Your task to perform on an android device: open app "Adobe Express: Graphic Design" Image 0: 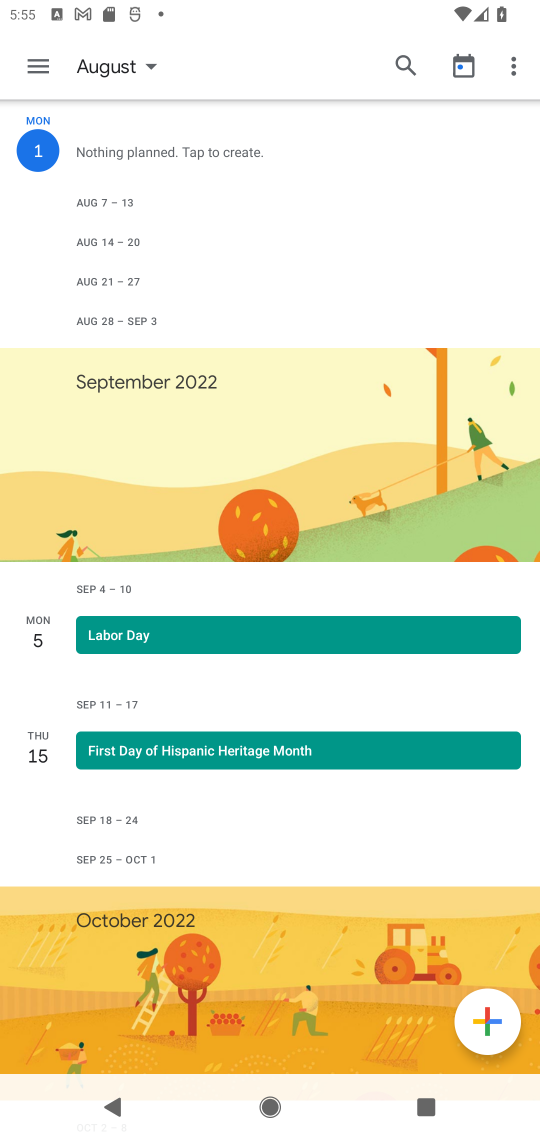
Step 0: press home button
Your task to perform on an android device: open app "Adobe Express: Graphic Design" Image 1: 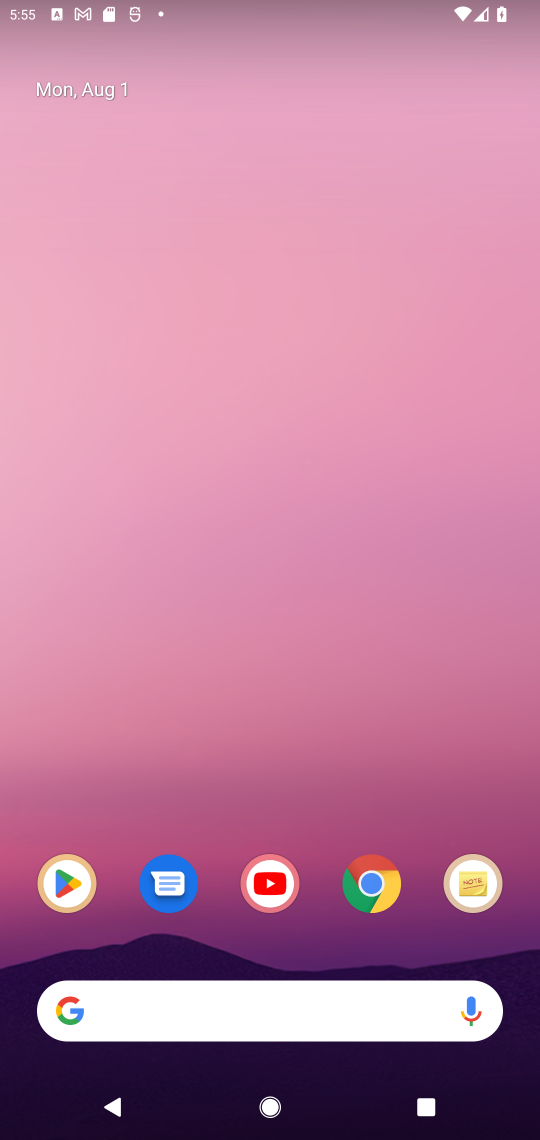
Step 1: click (85, 878)
Your task to perform on an android device: open app "Adobe Express: Graphic Design" Image 2: 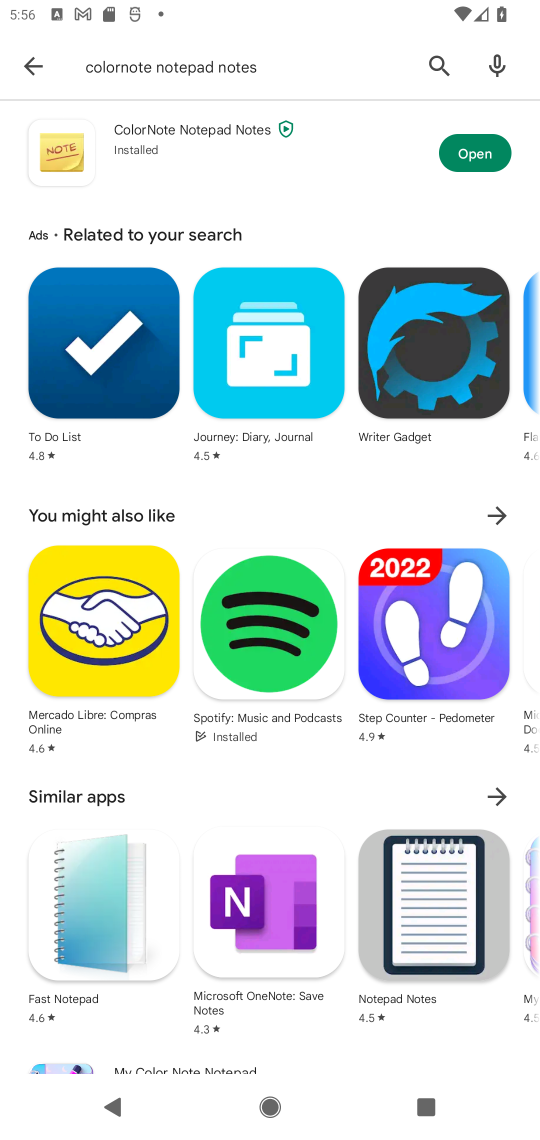
Step 2: click (26, 75)
Your task to perform on an android device: open app "Adobe Express: Graphic Design" Image 3: 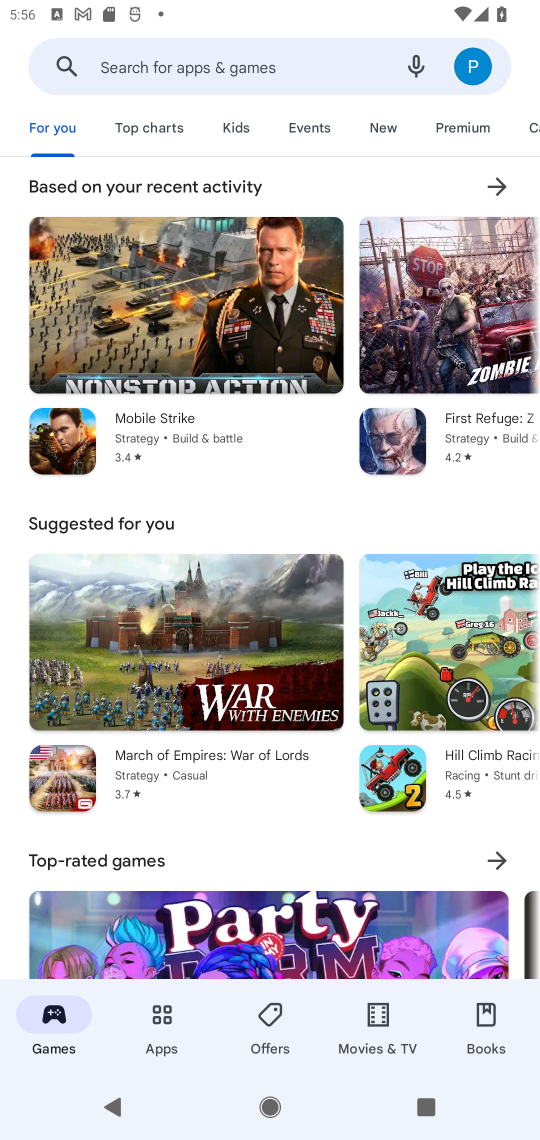
Step 3: click (212, 62)
Your task to perform on an android device: open app "Adobe Express: Graphic Design" Image 4: 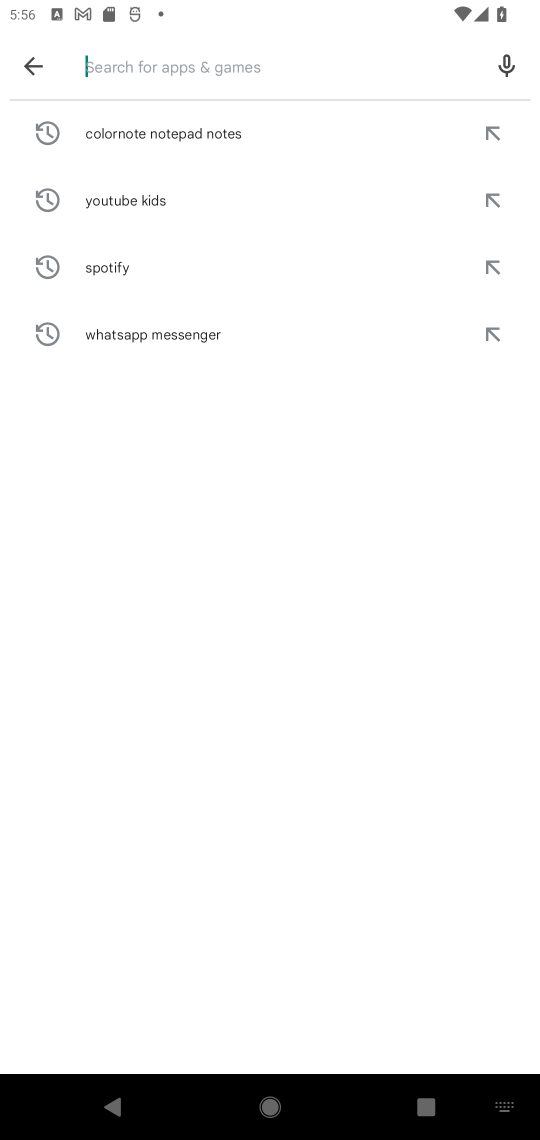
Step 4: type "Adobe Express: Graphic Design"
Your task to perform on an android device: open app "Adobe Express: Graphic Design" Image 5: 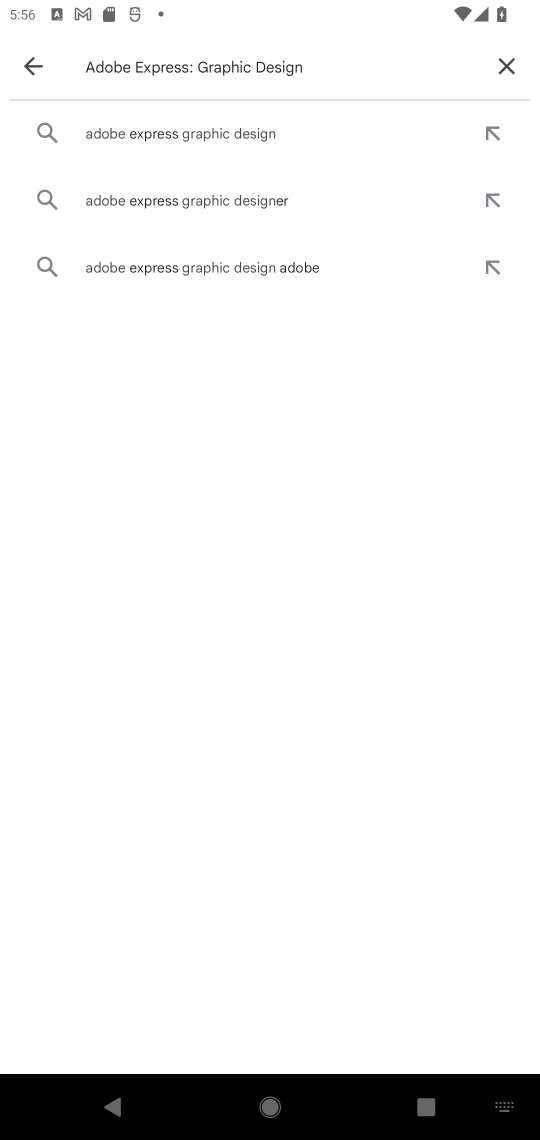
Step 5: click (198, 133)
Your task to perform on an android device: open app "Adobe Express: Graphic Design" Image 6: 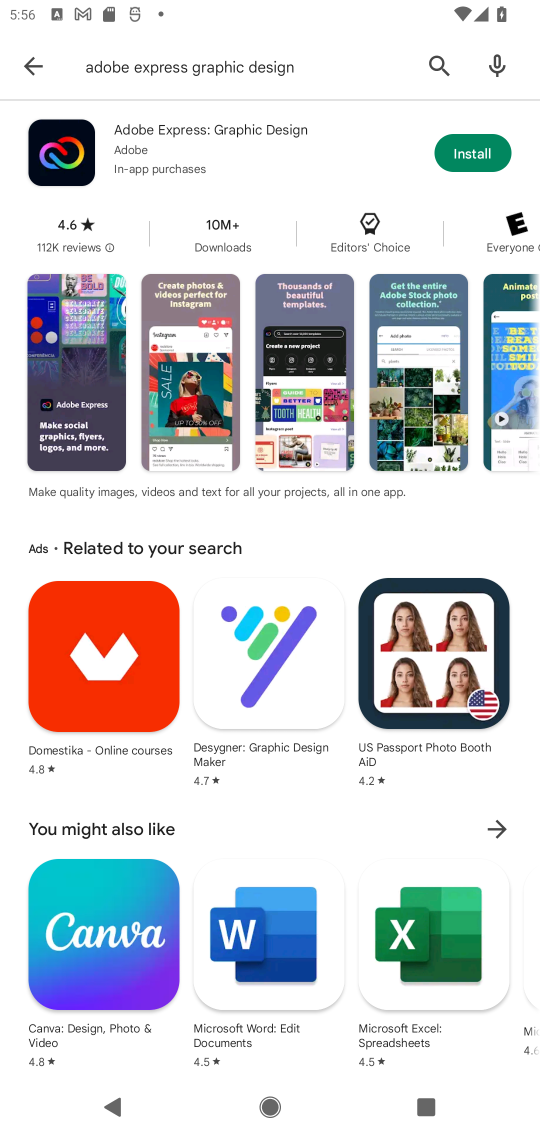
Step 6: click (475, 152)
Your task to perform on an android device: open app "Adobe Express: Graphic Design" Image 7: 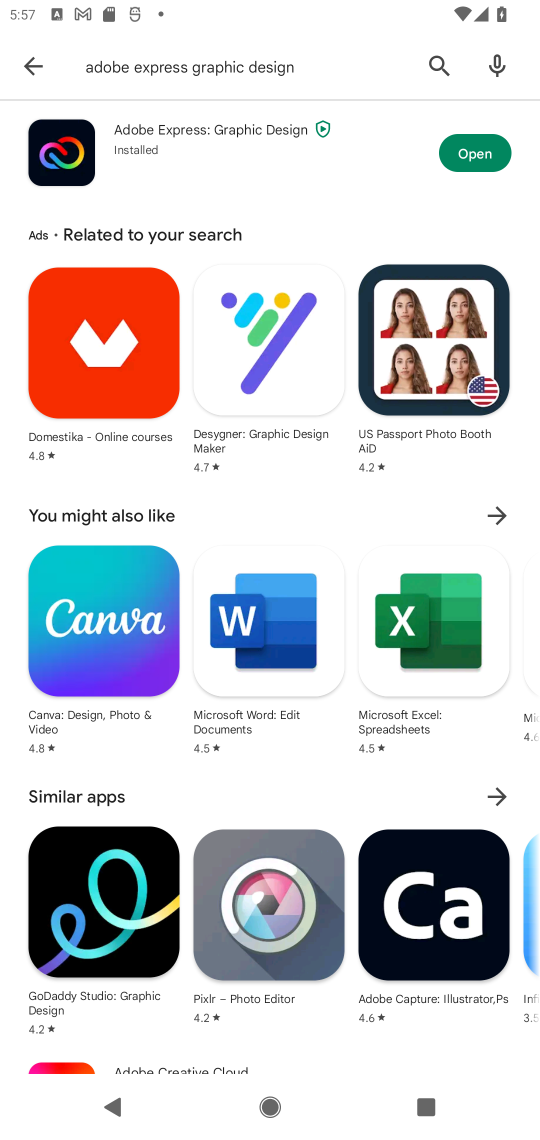
Step 7: click (485, 164)
Your task to perform on an android device: open app "Adobe Express: Graphic Design" Image 8: 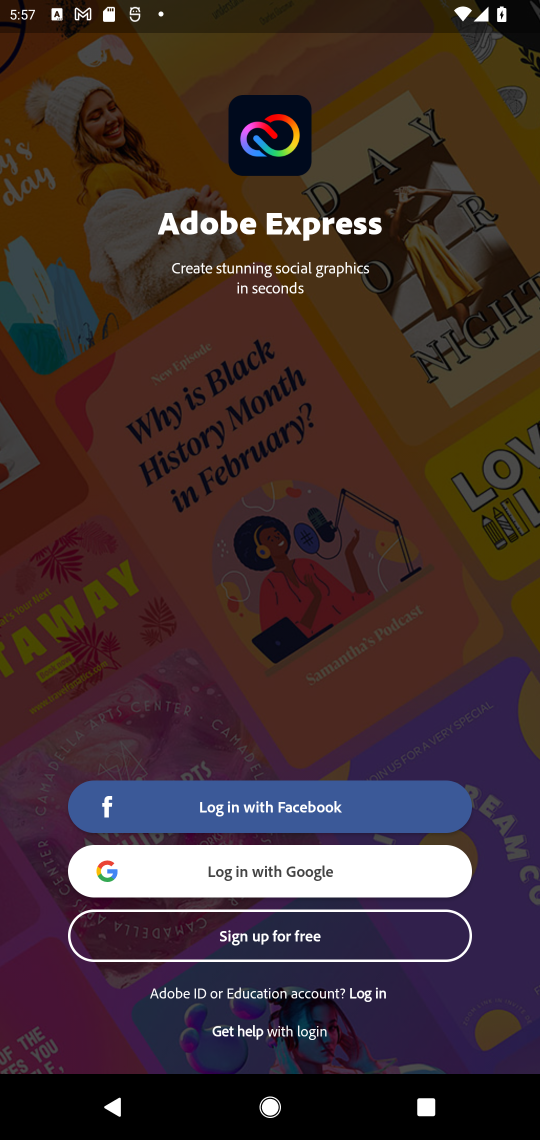
Step 8: task complete